Your task to perform on an android device: Open Google Image 0: 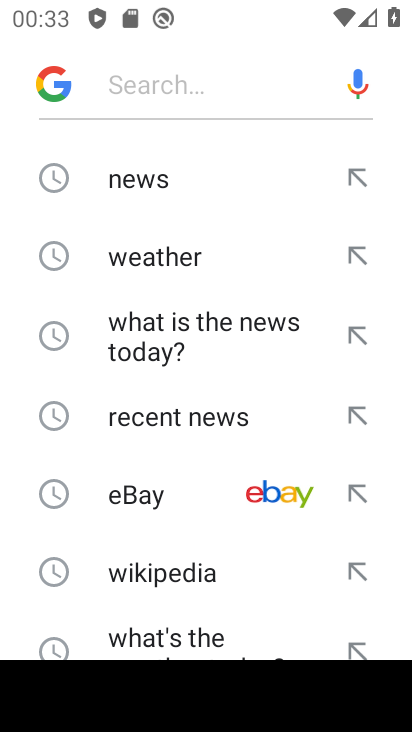
Step 0: press home button
Your task to perform on an android device: Open Google Image 1: 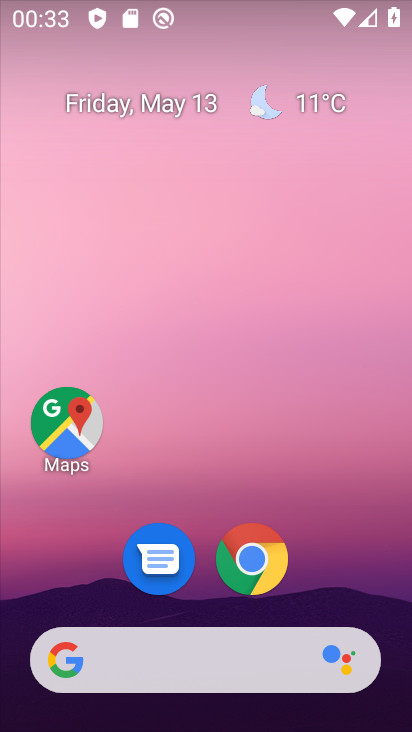
Step 1: drag from (200, 495) to (214, 107)
Your task to perform on an android device: Open Google Image 2: 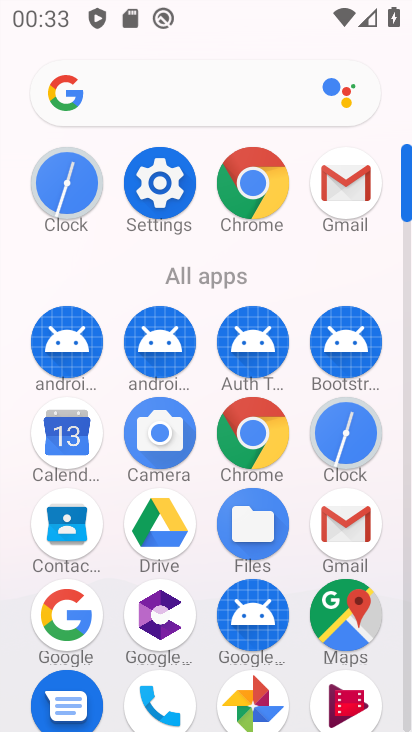
Step 2: click (74, 615)
Your task to perform on an android device: Open Google Image 3: 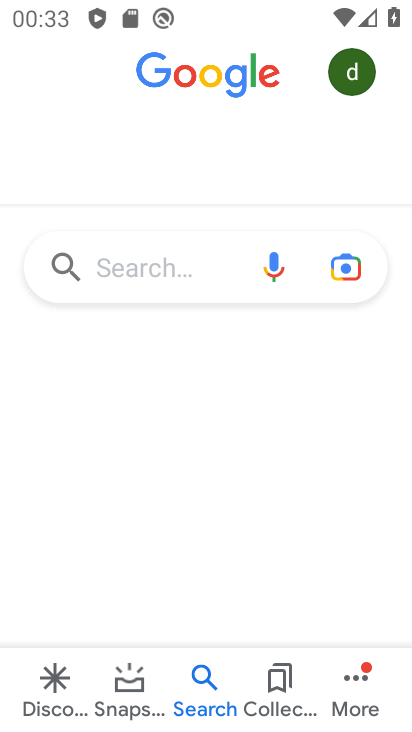
Step 3: task complete